Your task to perform on an android device: What's the weather going to be this weekend? Image 0: 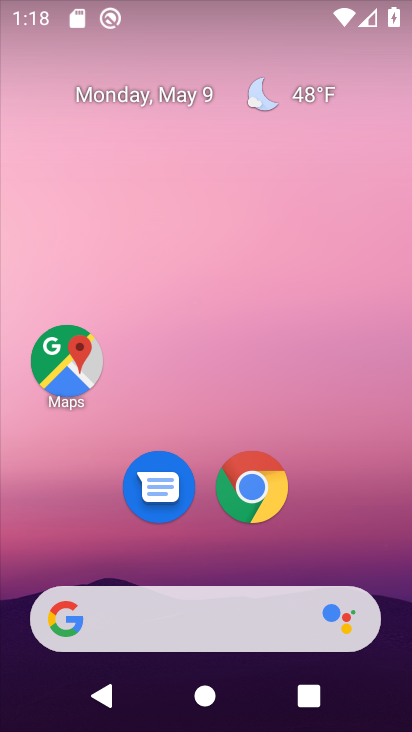
Step 0: drag from (184, 593) to (227, 131)
Your task to perform on an android device: What's the weather going to be this weekend? Image 1: 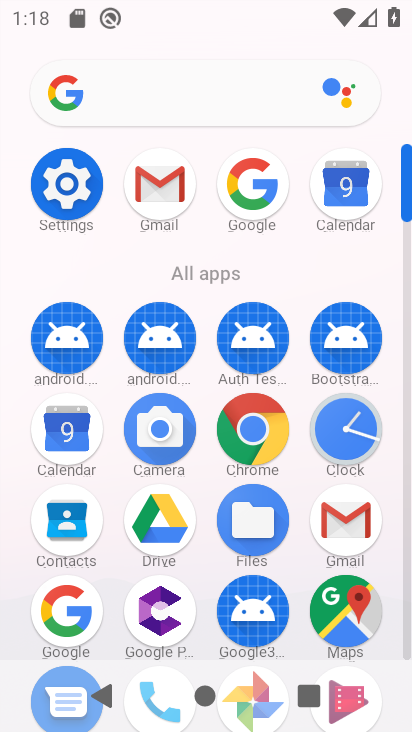
Step 1: click (237, 186)
Your task to perform on an android device: What's the weather going to be this weekend? Image 2: 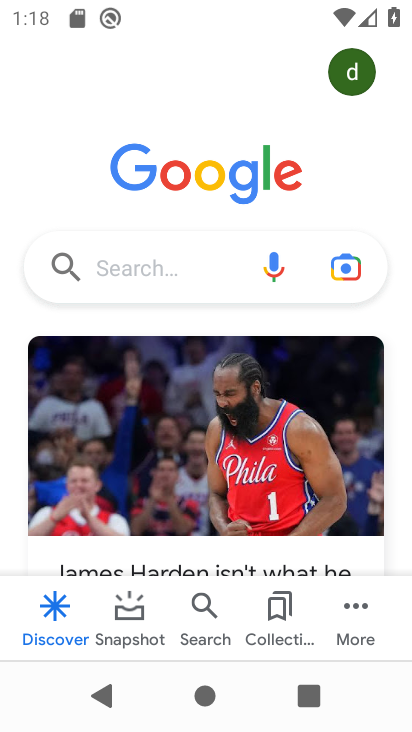
Step 2: click (130, 274)
Your task to perform on an android device: What's the weather going to be this weekend? Image 3: 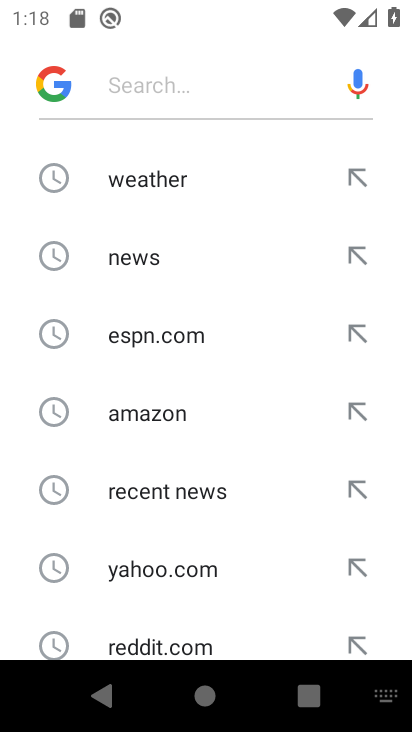
Step 3: drag from (146, 602) to (153, 214)
Your task to perform on an android device: What's the weather going to be this weekend? Image 4: 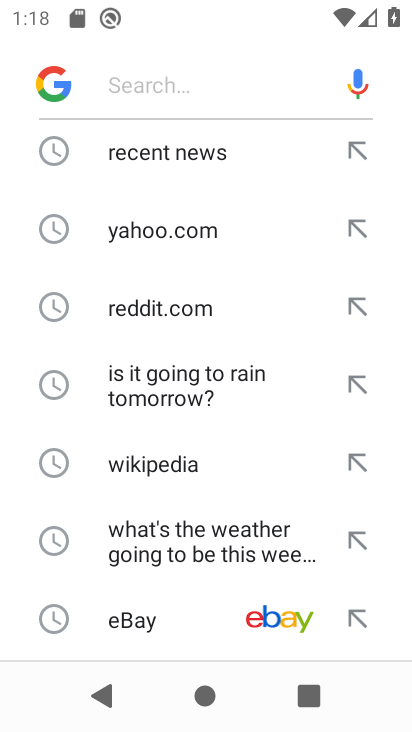
Step 4: click (180, 543)
Your task to perform on an android device: What's the weather going to be this weekend? Image 5: 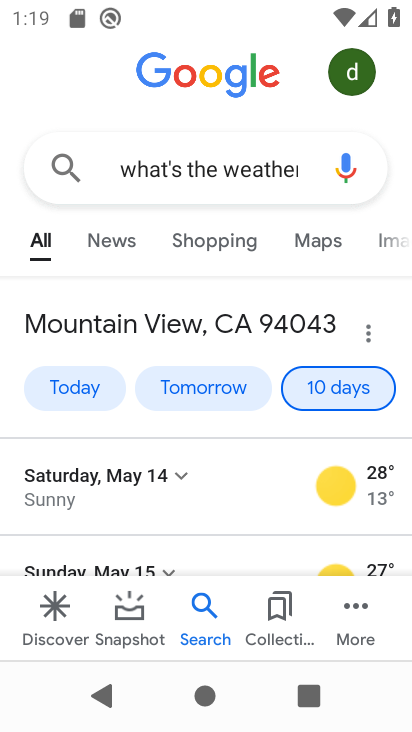
Step 5: drag from (195, 545) to (200, 193)
Your task to perform on an android device: What's the weather going to be this weekend? Image 6: 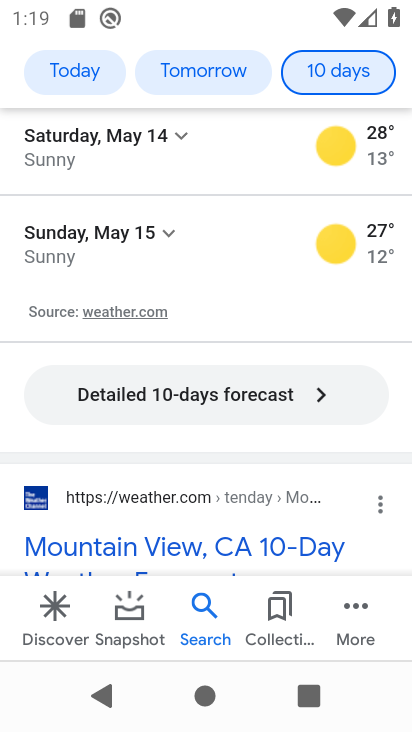
Step 6: click (168, 404)
Your task to perform on an android device: What's the weather going to be this weekend? Image 7: 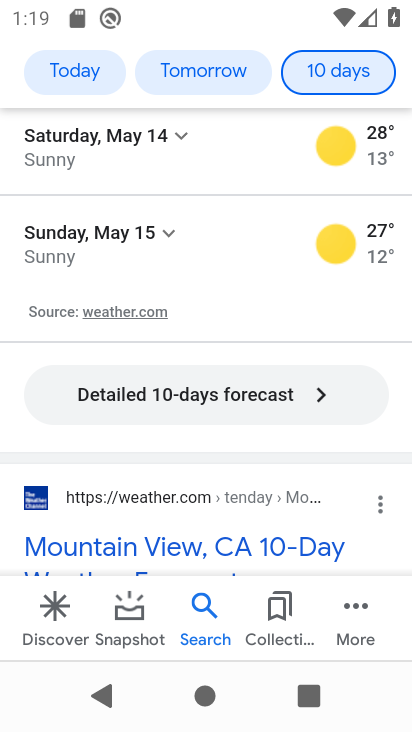
Step 7: click (164, 396)
Your task to perform on an android device: What's the weather going to be this weekend? Image 8: 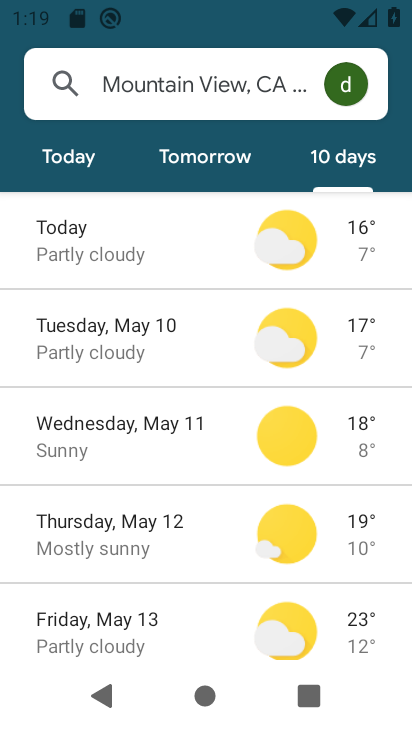
Step 8: task complete